Your task to perform on an android device: toggle wifi Image 0: 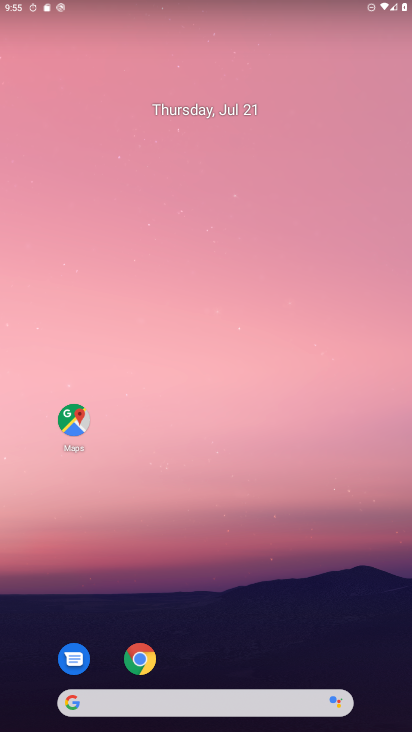
Step 0: drag from (321, 571) to (242, 7)
Your task to perform on an android device: toggle wifi Image 1: 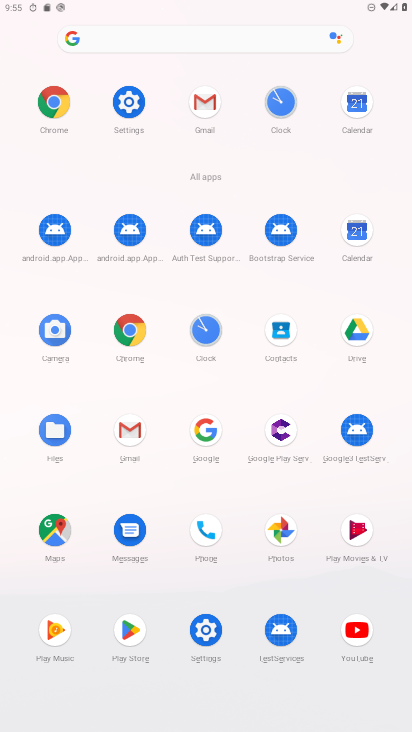
Step 1: click (131, 101)
Your task to perform on an android device: toggle wifi Image 2: 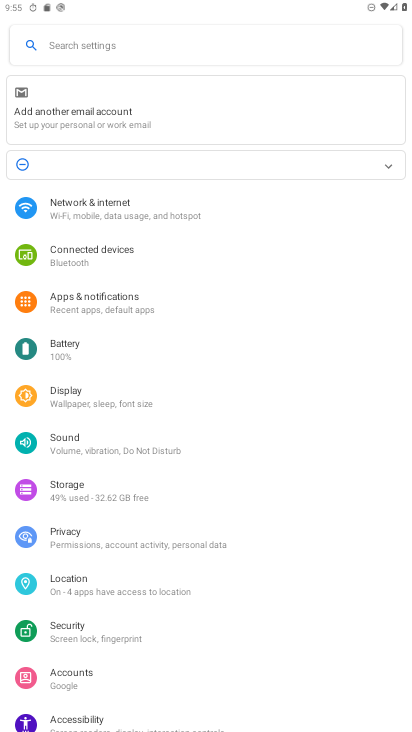
Step 2: click (134, 215)
Your task to perform on an android device: toggle wifi Image 3: 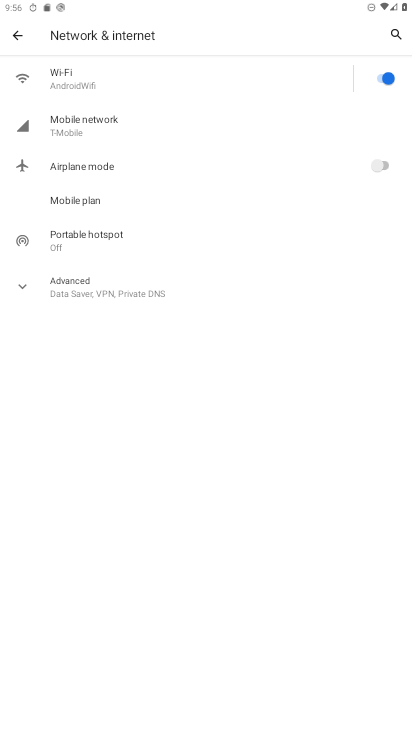
Step 3: click (392, 74)
Your task to perform on an android device: toggle wifi Image 4: 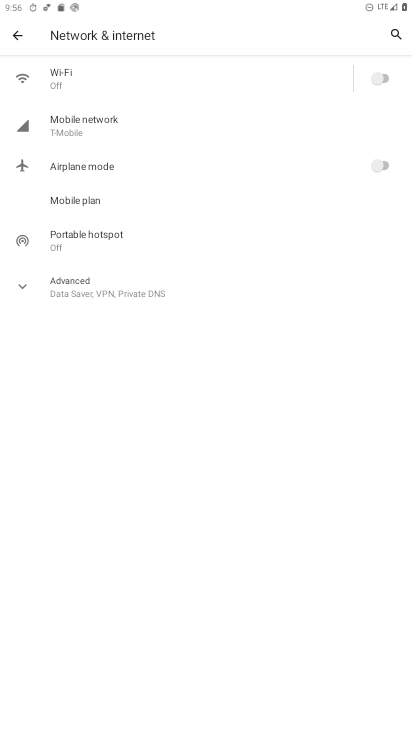
Step 4: task complete